Your task to perform on an android device: Go to location settings Image 0: 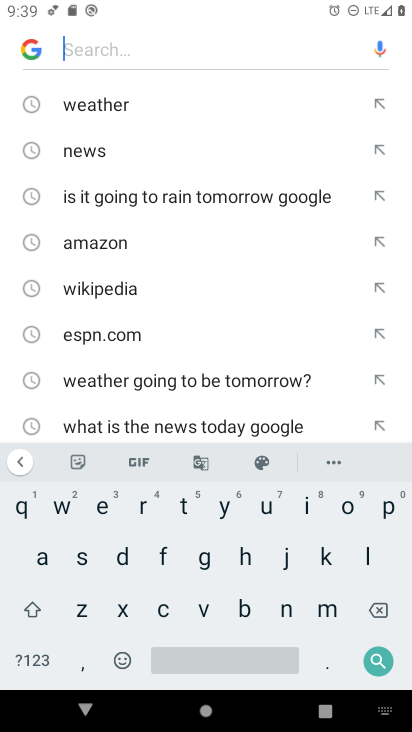
Step 0: press home button
Your task to perform on an android device: Go to location settings Image 1: 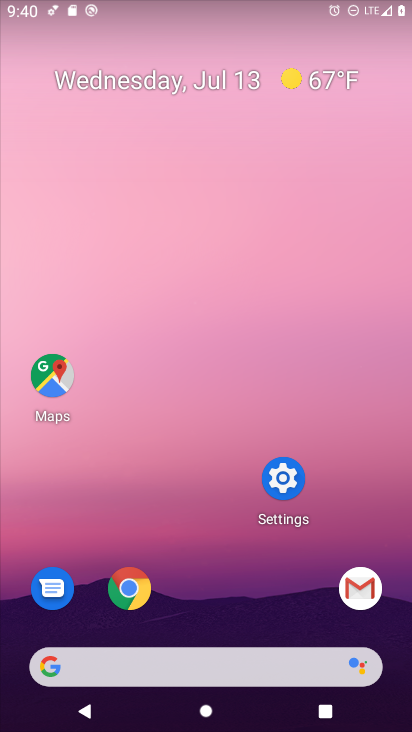
Step 1: click (287, 491)
Your task to perform on an android device: Go to location settings Image 2: 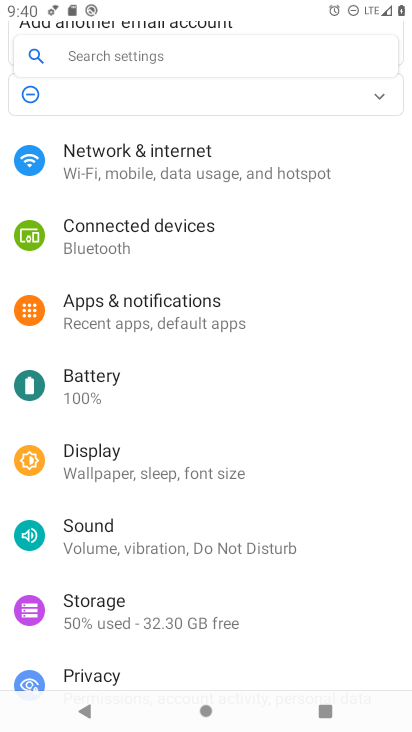
Step 2: drag from (182, 501) to (198, 376)
Your task to perform on an android device: Go to location settings Image 3: 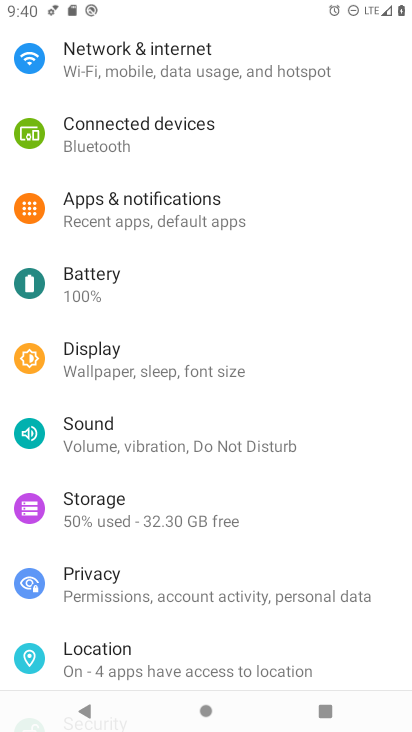
Step 3: click (109, 646)
Your task to perform on an android device: Go to location settings Image 4: 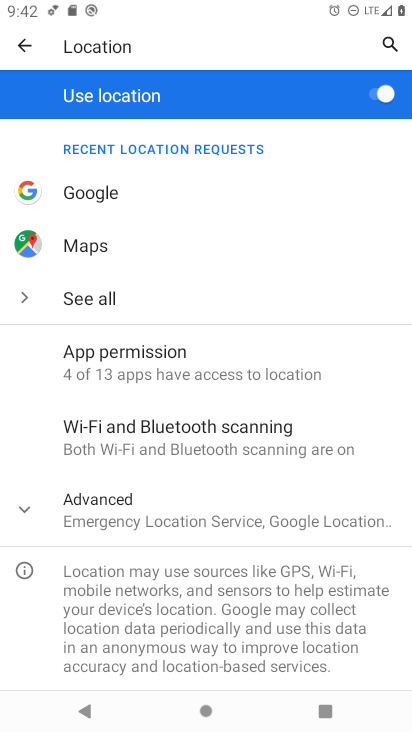
Step 4: task complete